Your task to perform on an android device: Turn on the flashlight Image 0: 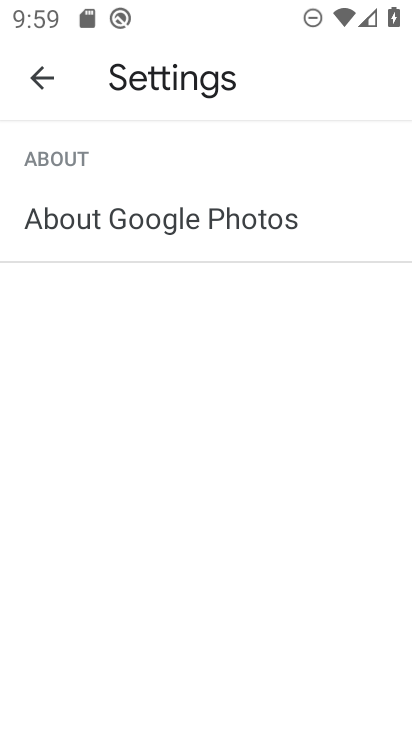
Step 0: press back button
Your task to perform on an android device: Turn on the flashlight Image 1: 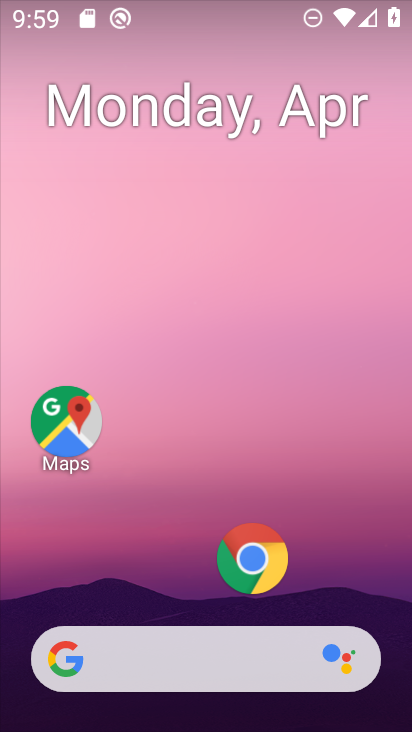
Step 1: task complete